Your task to perform on an android device: Open network settings Image 0: 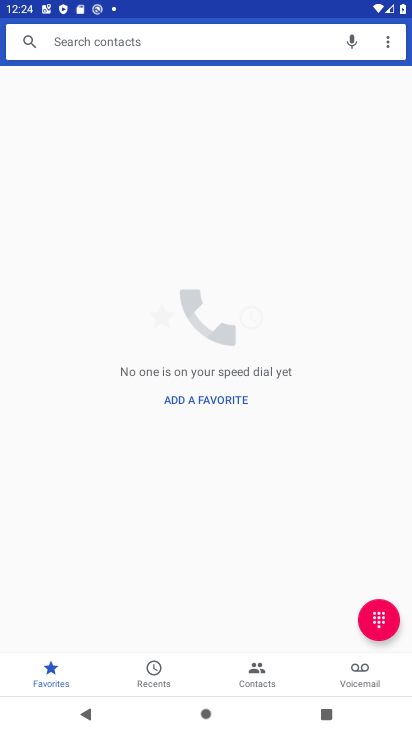
Step 0: press home button
Your task to perform on an android device: Open network settings Image 1: 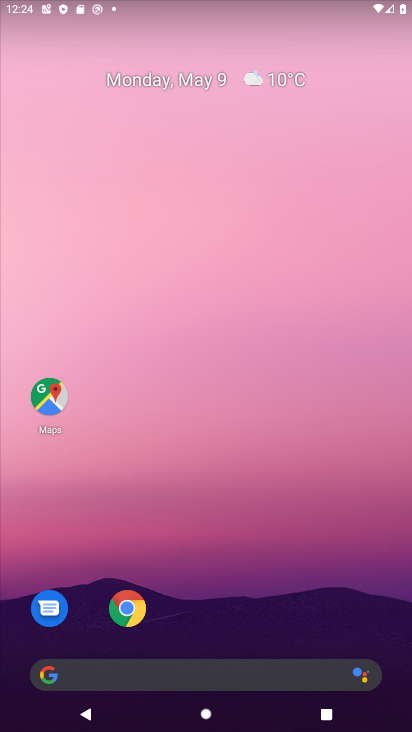
Step 1: drag from (233, 615) to (233, 271)
Your task to perform on an android device: Open network settings Image 2: 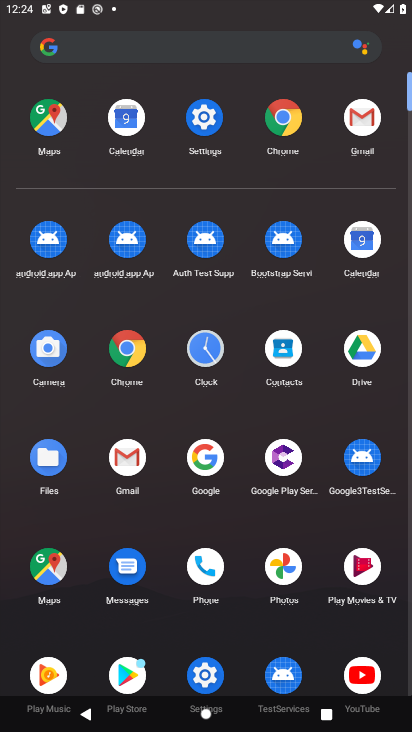
Step 2: click (198, 145)
Your task to perform on an android device: Open network settings Image 3: 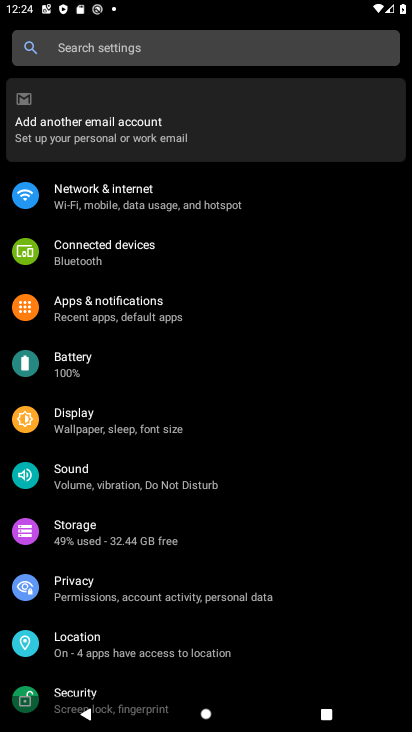
Step 3: click (161, 196)
Your task to perform on an android device: Open network settings Image 4: 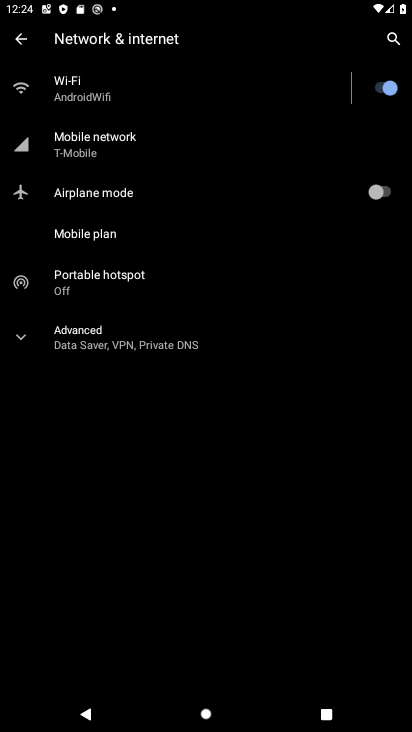
Step 4: task complete